Your task to perform on an android device: Go to Android settings Image 0: 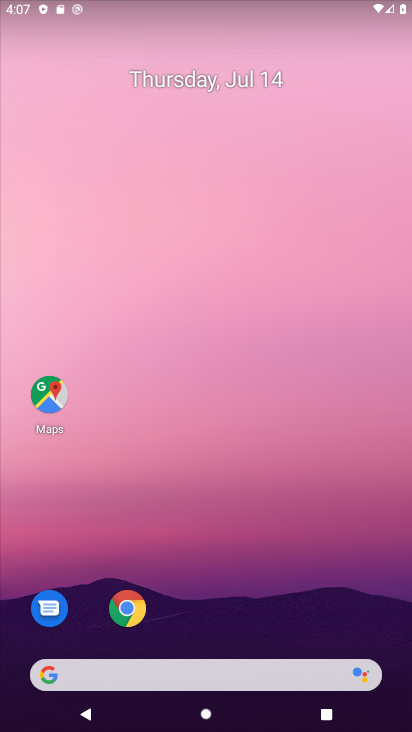
Step 0: drag from (219, 636) to (243, 19)
Your task to perform on an android device: Go to Android settings Image 1: 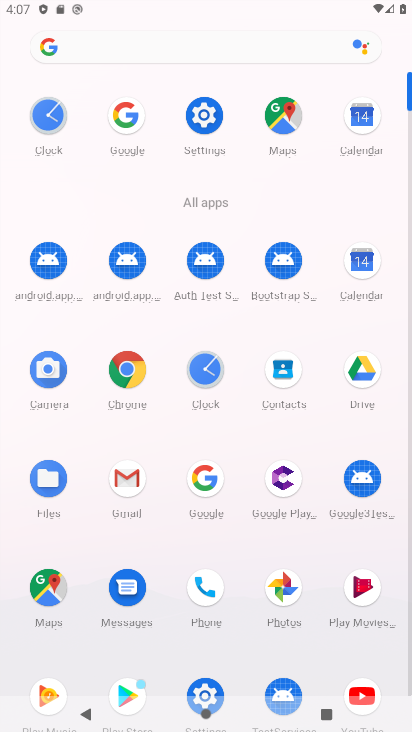
Step 1: click (204, 101)
Your task to perform on an android device: Go to Android settings Image 2: 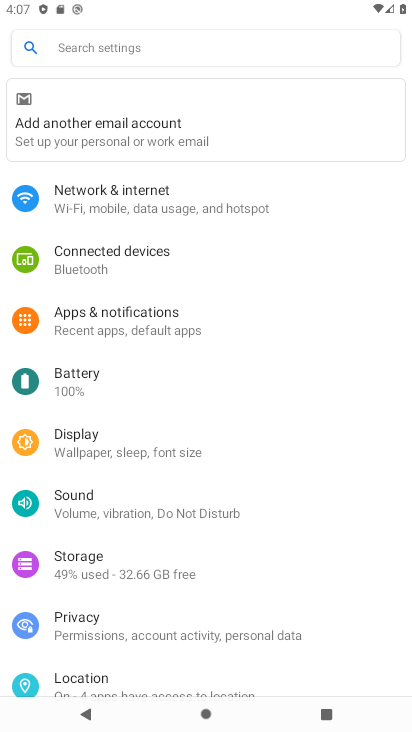
Step 2: task complete